Your task to perform on an android device: set the stopwatch Image 0: 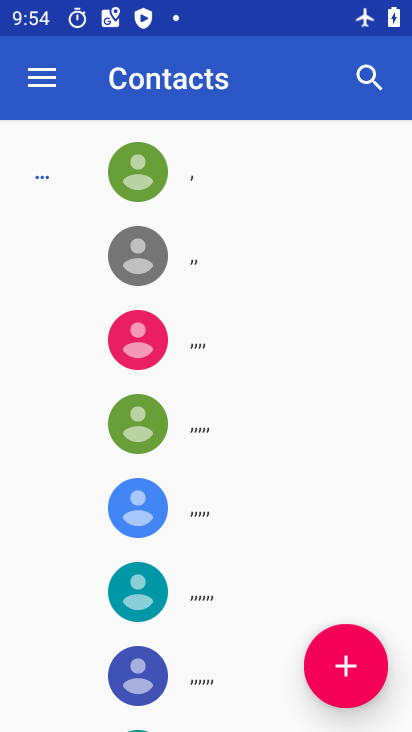
Step 0: press home button
Your task to perform on an android device: set the stopwatch Image 1: 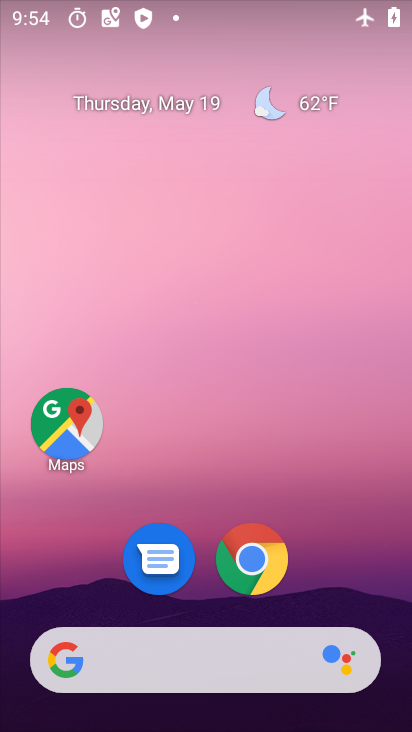
Step 1: drag from (327, 556) to (307, 119)
Your task to perform on an android device: set the stopwatch Image 2: 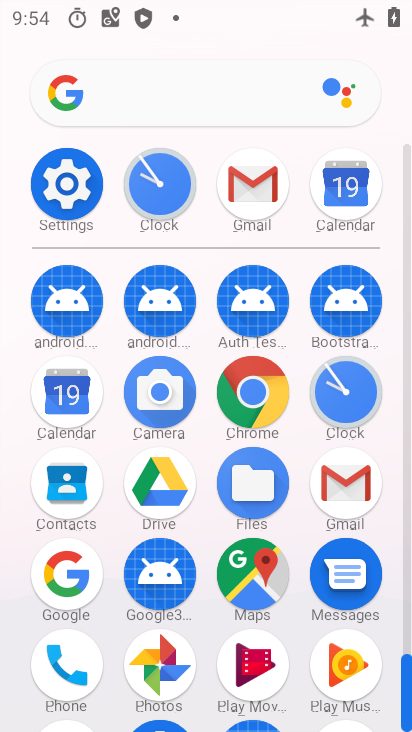
Step 2: click (165, 173)
Your task to perform on an android device: set the stopwatch Image 3: 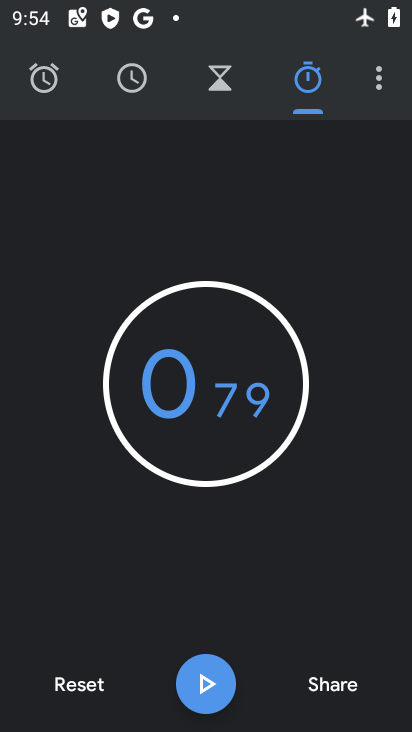
Step 3: task complete